Your task to perform on an android device: search for starred emails in the gmail app Image 0: 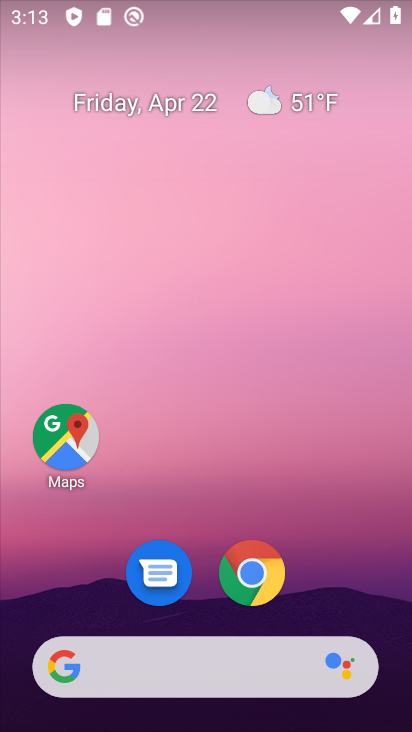
Step 0: drag from (316, 611) to (306, 148)
Your task to perform on an android device: search for starred emails in the gmail app Image 1: 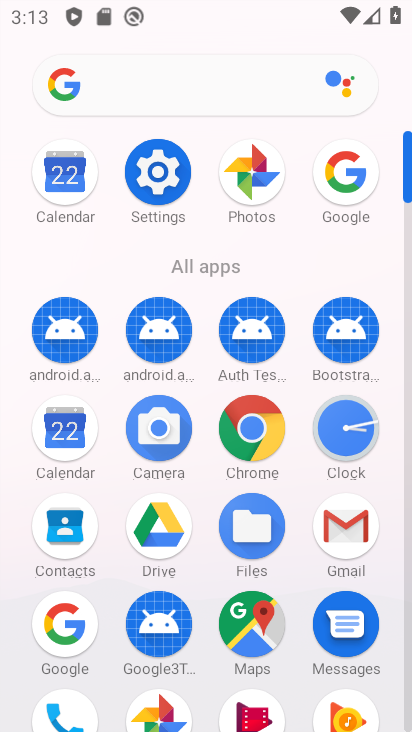
Step 1: click (351, 539)
Your task to perform on an android device: search for starred emails in the gmail app Image 2: 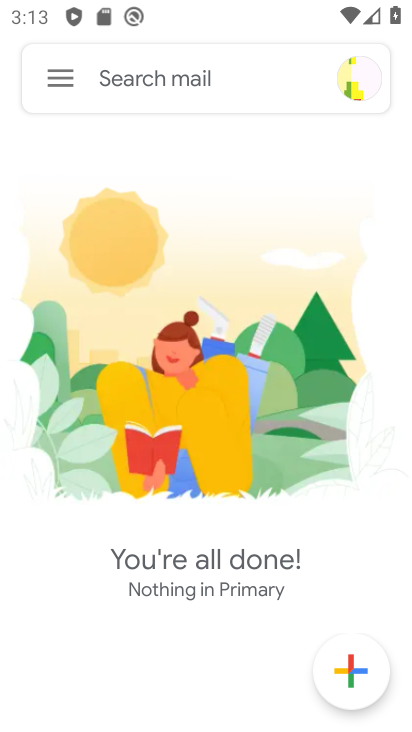
Step 2: click (56, 69)
Your task to perform on an android device: search for starred emails in the gmail app Image 3: 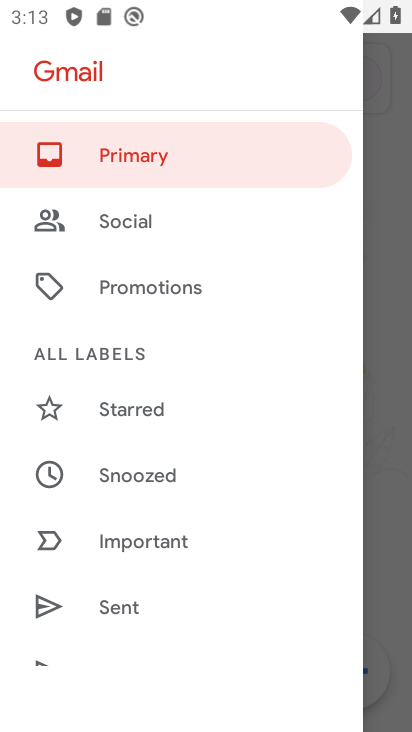
Step 3: click (169, 406)
Your task to perform on an android device: search for starred emails in the gmail app Image 4: 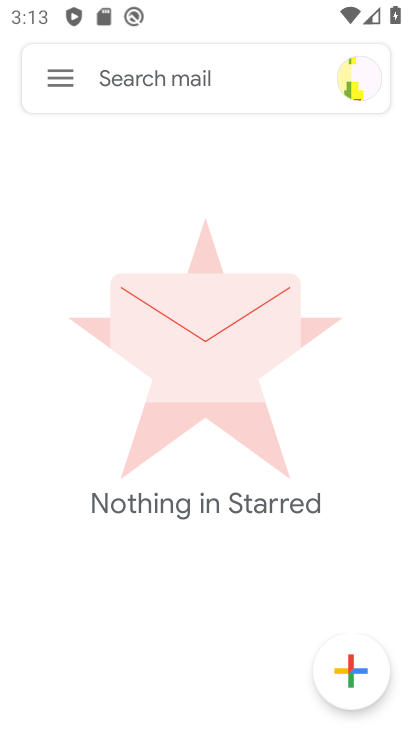
Step 4: task complete